Your task to perform on an android device: toggle javascript in the chrome app Image 0: 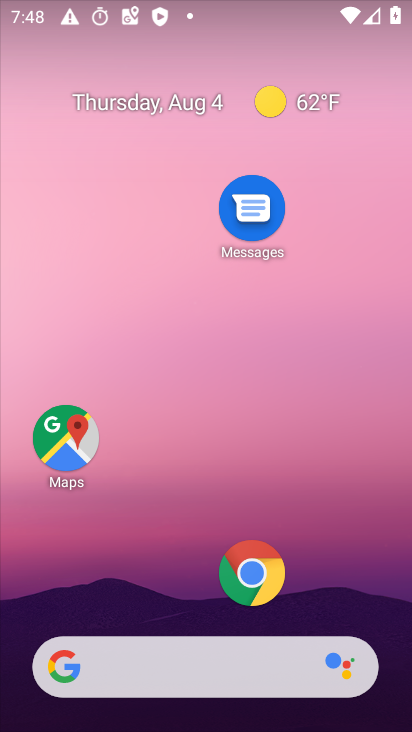
Step 0: press home button
Your task to perform on an android device: toggle javascript in the chrome app Image 1: 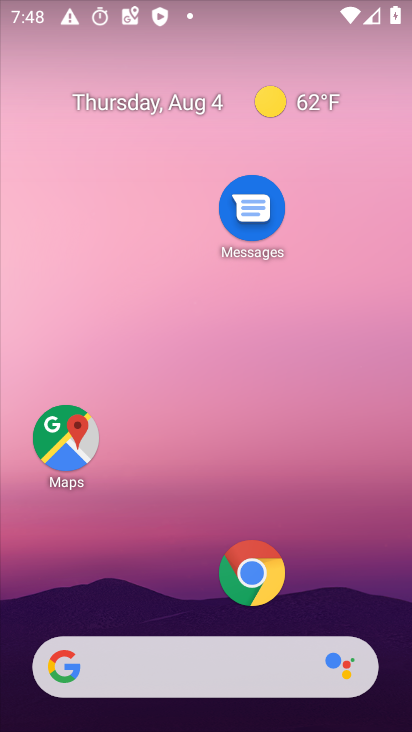
Step 1: drag from (152, 612) to (239, 58)
Your task to perform on an android device: toggle javascript in the chrome app Image 2: 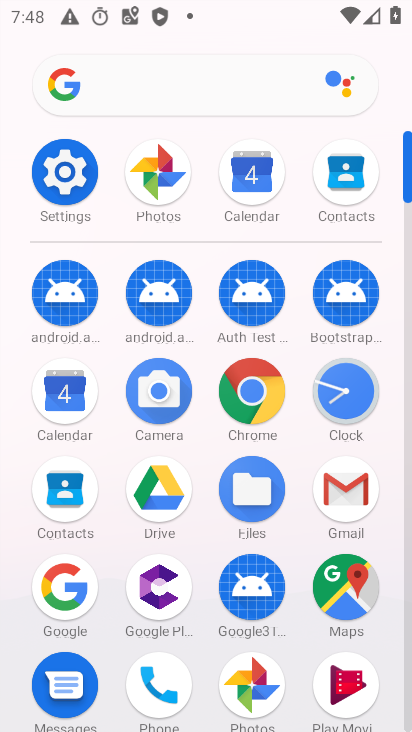
Step 2: click (247, 397)
Your task to perform on an android device: toggle javascript in the chrome app Image 3: 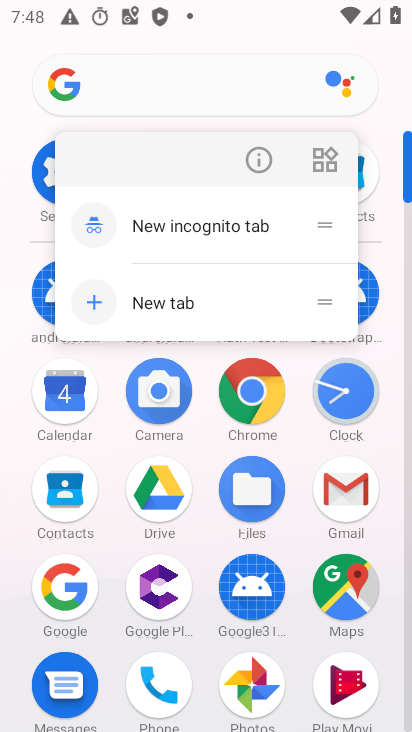
Step 3: click (390, 112)
Your task to perform on an android device: toggle javascript in the chrome app Image 4: 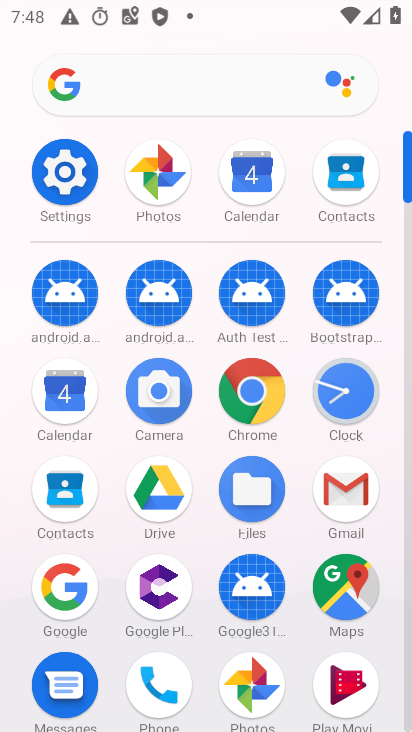
Step 4: click (249, 388)
Your task to perform on an android device: toggle javascript in the chrome app Image 5: 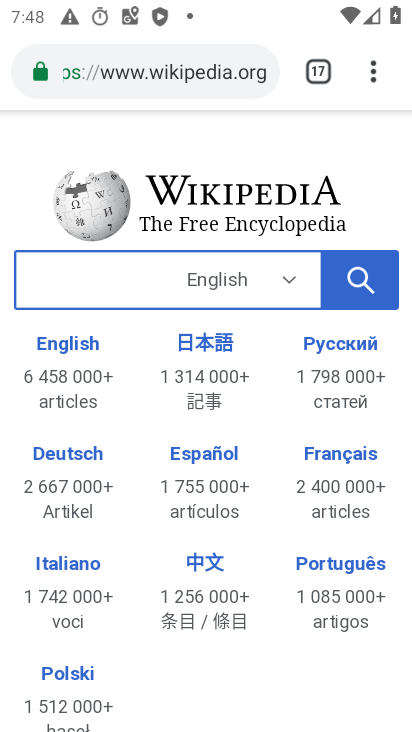
Step 5: drag from (368, 71) to (144, 572)
Your task to perform on an android device: toggle javascript in the chrome app Image 6: 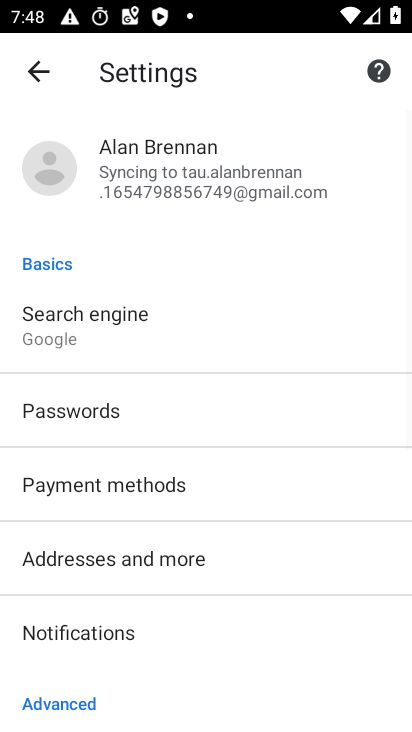
Step 6: drag from (264, 615) to (236, 229)
Your task to perform on an android device: toggle javascript in the chrome app Image 7: 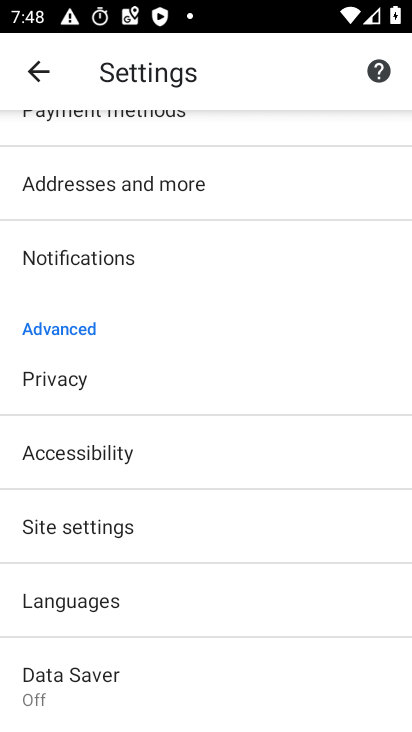
Step 7: click (91, 530)
Your task to perform on an android device: toggle javascript in the chrome app Image 8: 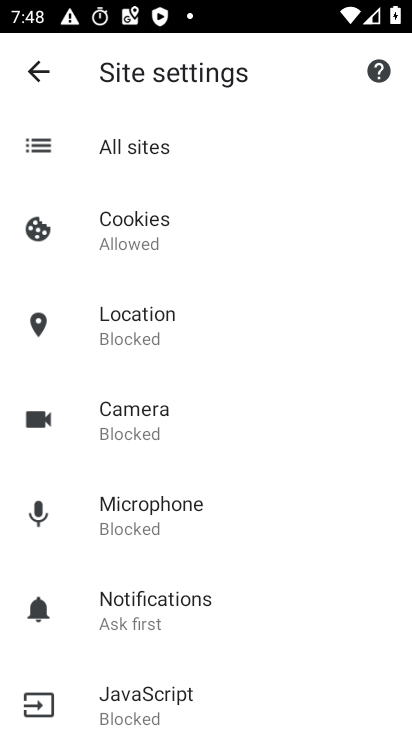
Step 8: click (152, 699)
Your task to perform on an android device: toggle javascript in the chrome app Image 9: 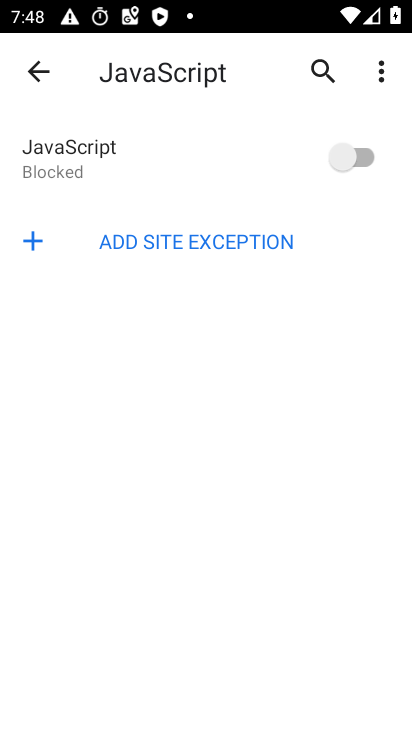
Step 9: click (348, 155)
Your task to perform on an android device: toggle javascript in the chrome app Image 10: 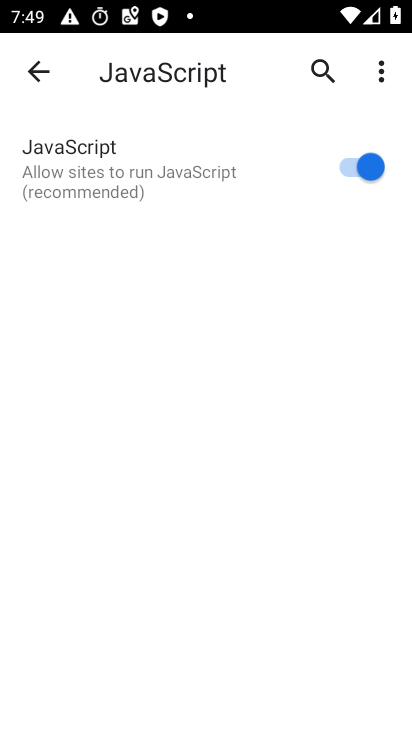
Step 10: task complete